Your task to perform on an android device: Go to Yahoo.com Image 0: 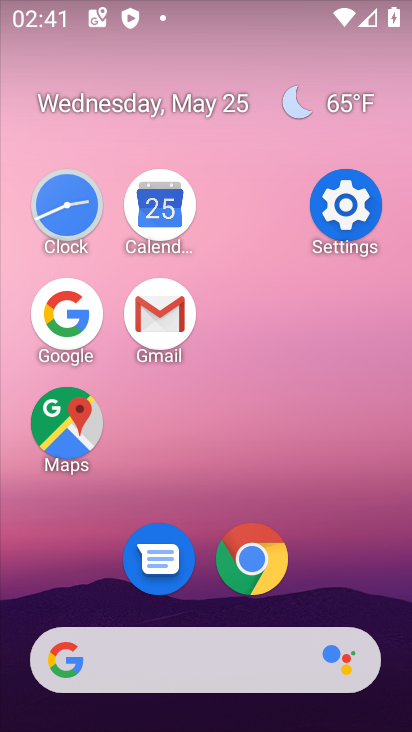
Step 0: click (240, 570)
Your task to perform on an android device: Go to Yahoo.com Image 1: 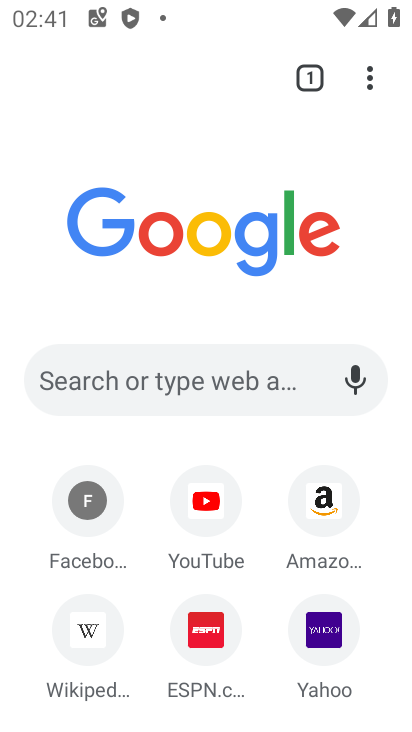
Step 1: click (319, 629)
Your task to perform on an android device: Go to Yahoo.com Image 2: 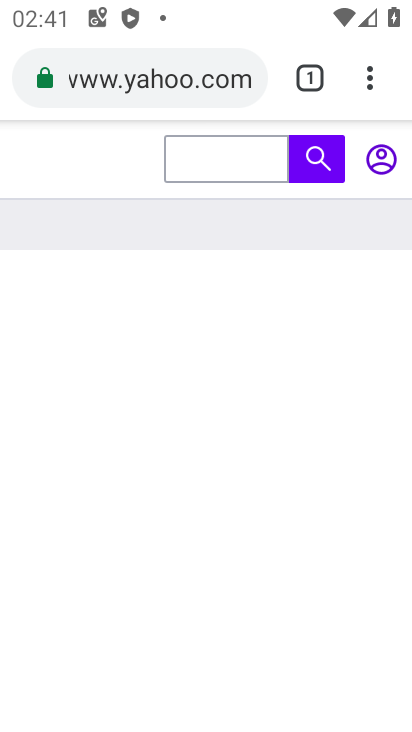
Step 2: task complete